Your task to perform on an android device: What's the weather going to be tomorrow? Image 0: 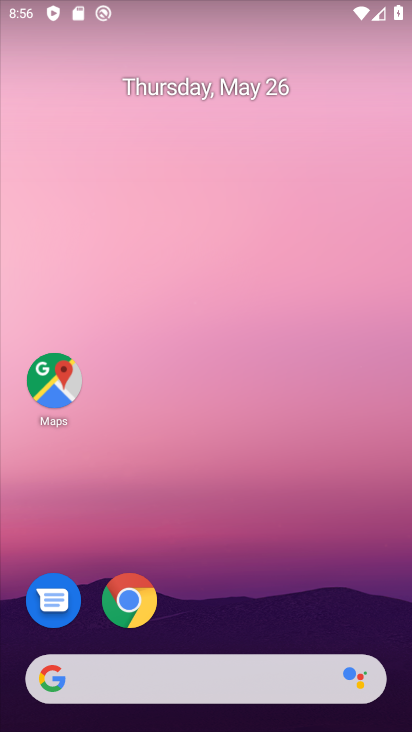
Step 0: click (167, 678)
Your task to perform on an android device: What's the weather going to be tomorrow? Image 1: 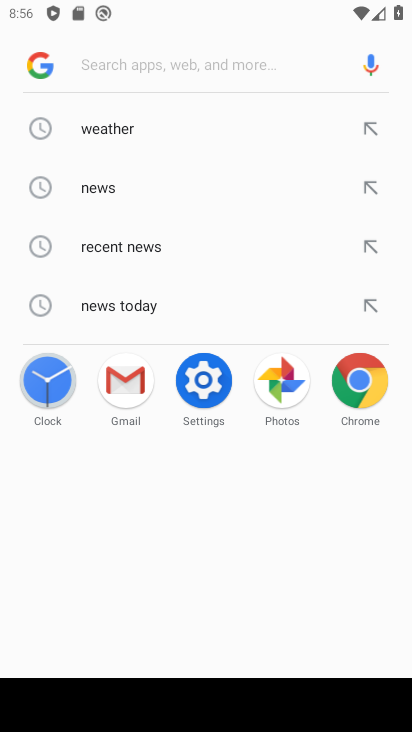
Step 1: click (147, 138)
Your task to perform on an android device: What's the weather going to be tomorrow? Image 2: 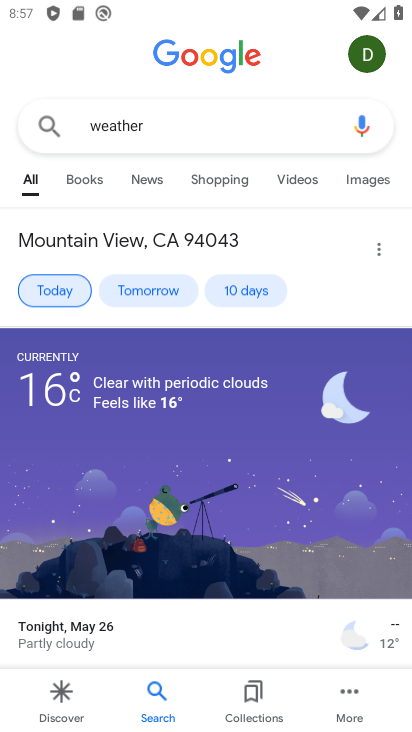
Step 2: task complete